Your task to perform on an android device: turn off improve location accuracy Image 0: 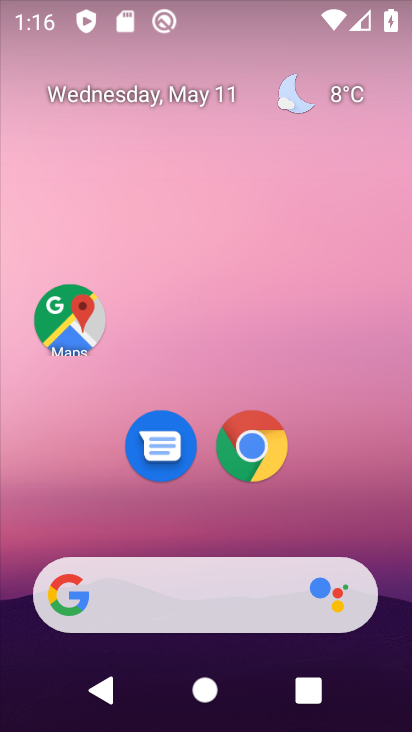
Step 0: drag from (356, 464) to (374, 95)
Your task to perform on an android device: turn off improve location accuracy Image 1: 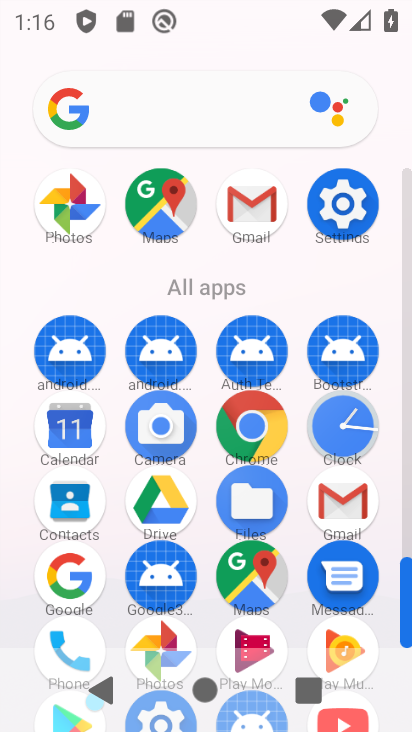
Step 1: drag from (294, 588) to (298, 267)
Your task to perform on an android device: turn off improve location accuracy Image 2: 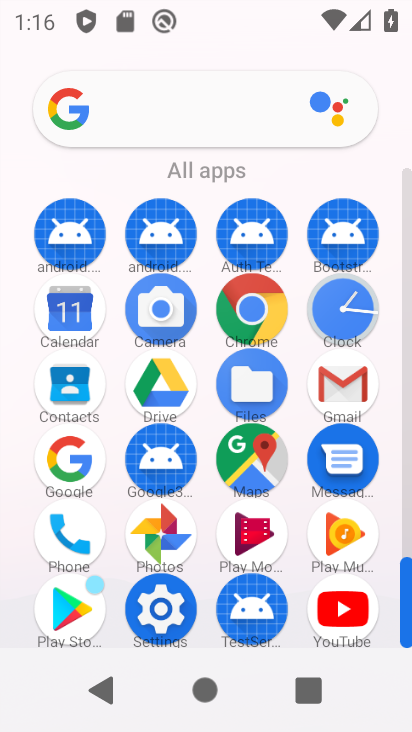
Step 2: click (176, 594)
Your task to perform on an android device: turn off improve location accuracy Image 3: 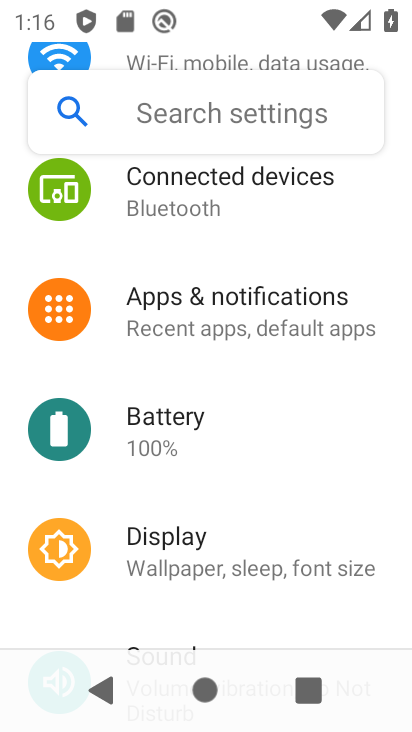
Step 3: drag from (297, 493) to (316, 201)
Your task to perform on an android device: turn off improve location accuracy Image 4: 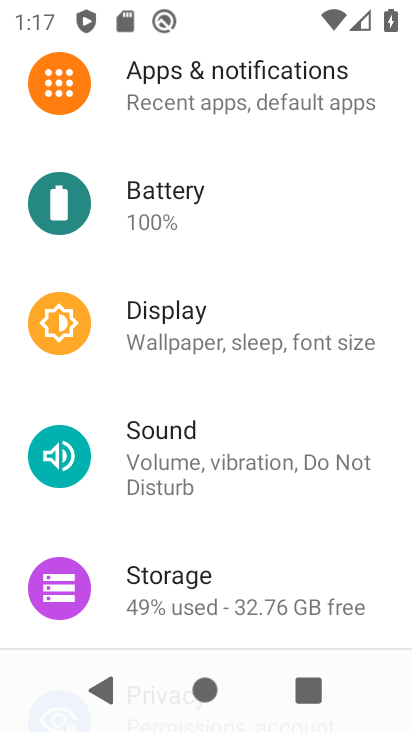
Step 4: drag from (308, 541) to (328, 270)
Your task to perform on an android device: turn off improve location accuracy Image 5: 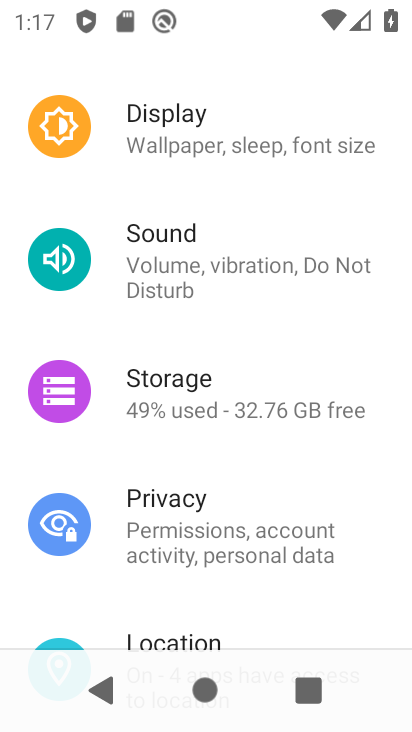
Step 5: drag from (318, 597) to (316, 250)
Your task to perform on an android device: turn off improve location accuracy Image 6: 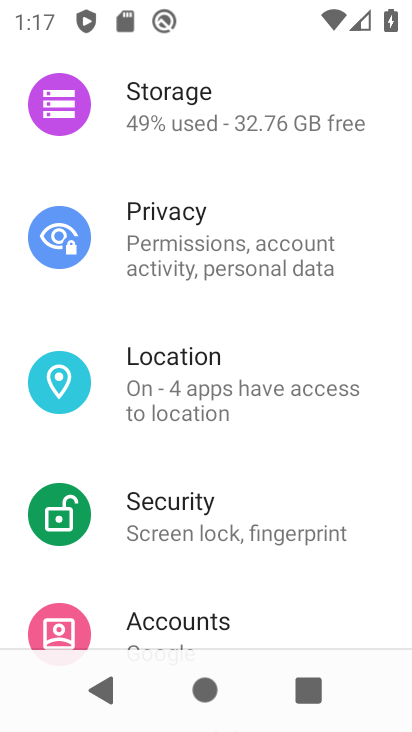
Step 6: click (248, 378)
Your task to perform on an android device: turn off improve location accuracy Image 7: 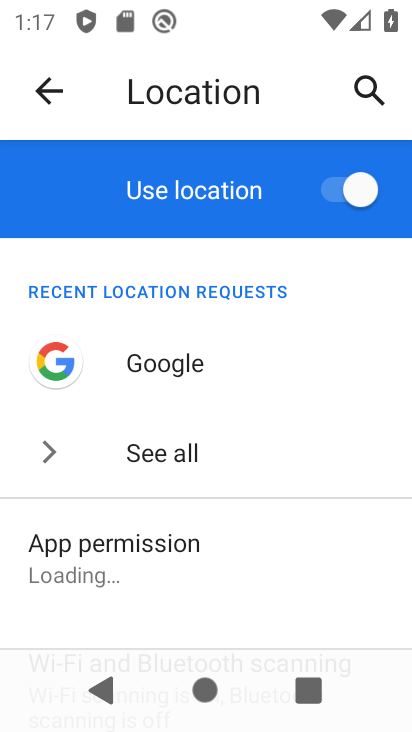
Step 7: drag from (283, 625) to (285, 334)
Your task to perform on an android device: turn off improve location accuracy Image 8: 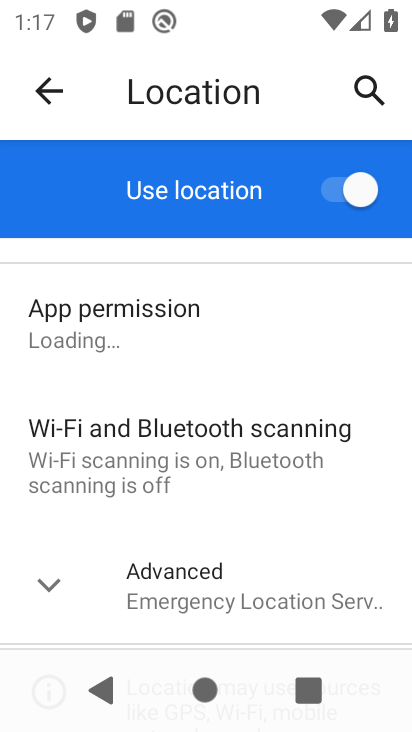
Step 8: drag from (275, 512) to (277, 307)
Your task to perform on an android device: turn off improve location accuracy Image 9: 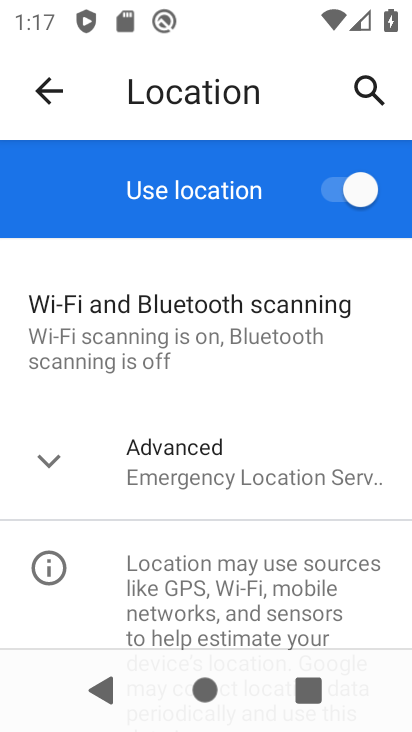
Step 9: click (193, 479)
Your task to perform on an android device: turn off improve location accuracy Image 10: 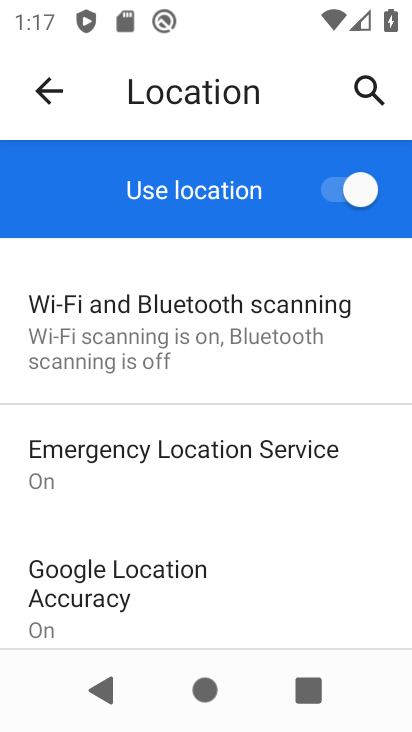
Step 10: drag from (261, 590) to (279, 330)
Your task to perform on an android device: turn off improve location accuracy Image 11: 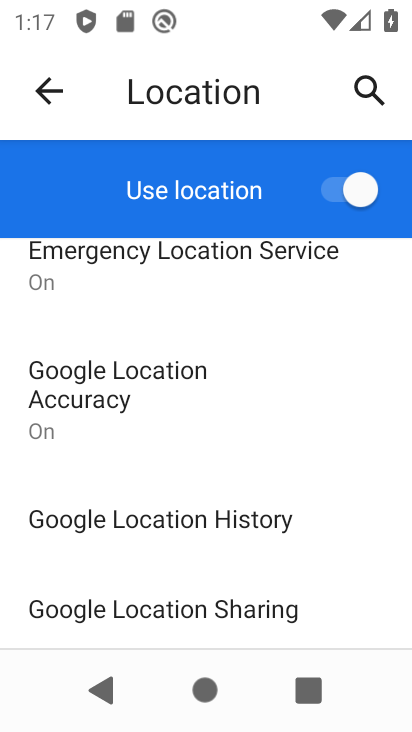
Step 11: click (131, 402)
Your task to perform on an android device: turn off improve location accuracy Image 12: 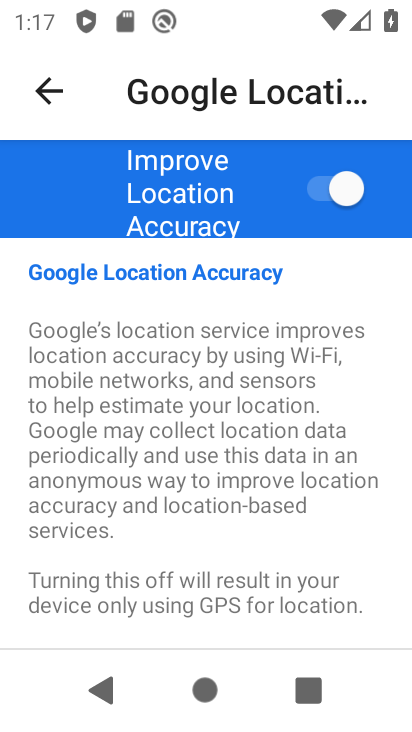
Step 12: click (324, 195)
Your task to perform on an android device: turn off improve location accuracy Image 13: 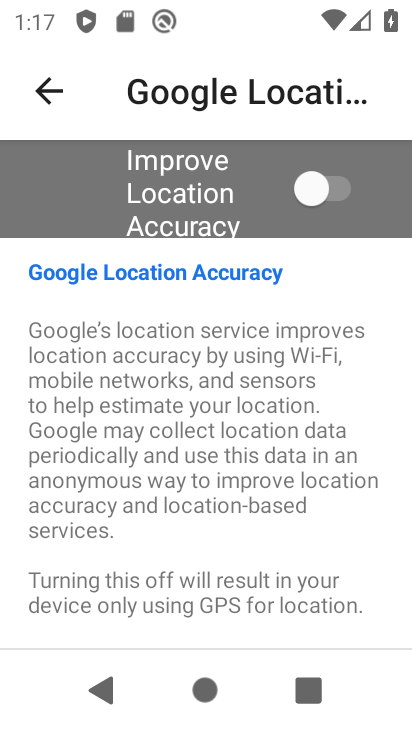
Step 13: task complete